Your task to perform on an android device: turn on the 24-hour format for clock Image 0: 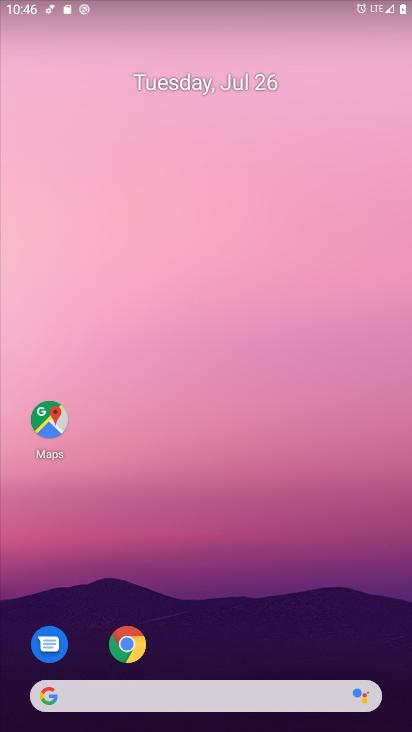
Step 0: drag from (196, 647) to (236, 99)
Your task to perform on an android device: turn on the 24-hour format for clock Image 1: 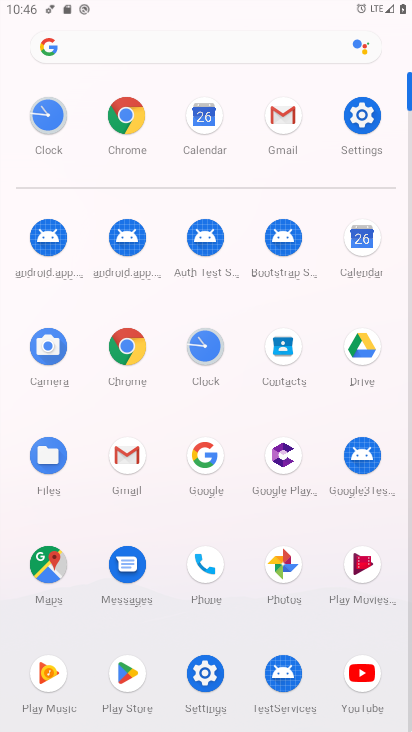
Step 1: click (350, 150)
Your task to perform on an android device: turn on the 24-hour format for clock Image 2: 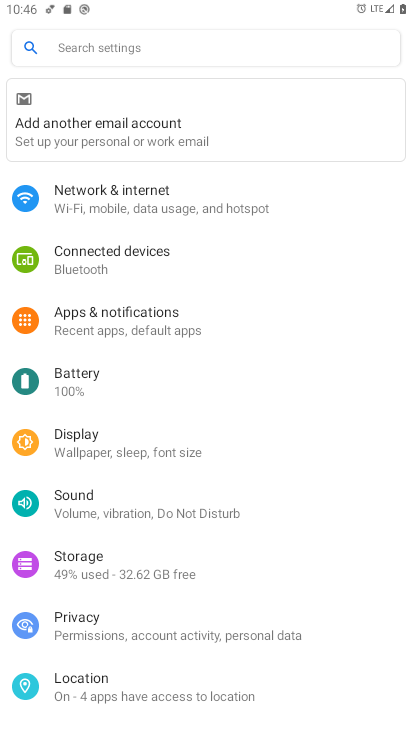
Step 2: drag from (156, 681) to (165, 405)
Your task to perform on an android device: turn on the 24-hour format for clock Image 3: 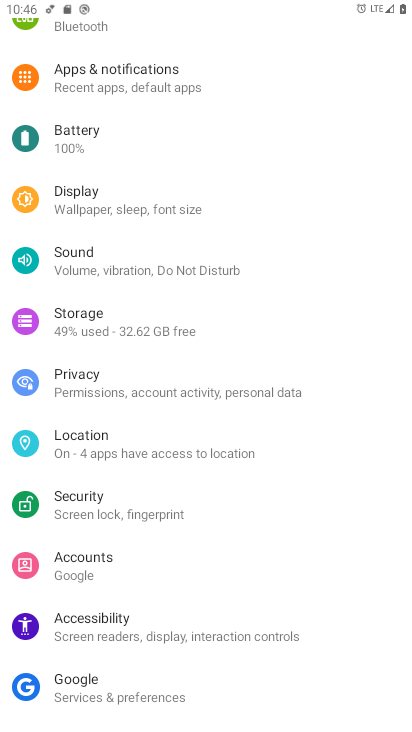
Step 3: drag from (98, 690) to (145, 308)
Your task to perform on an android device: turn on the 24-hour format for clock Image 4: 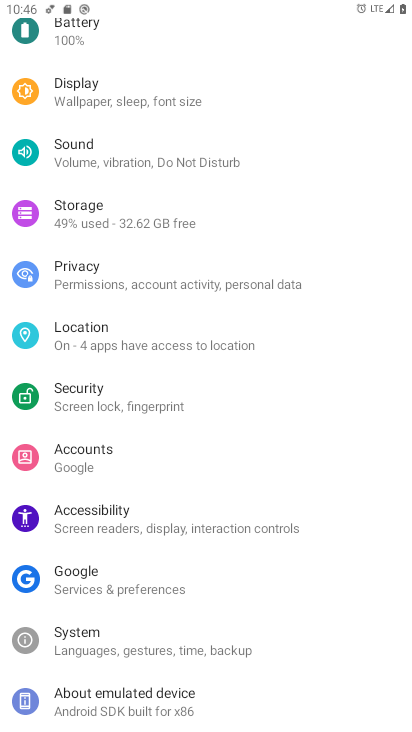
Step 4: click (93, 648)
Your task to perform on an android device: turn on the 24-hour format for clock Image 5: 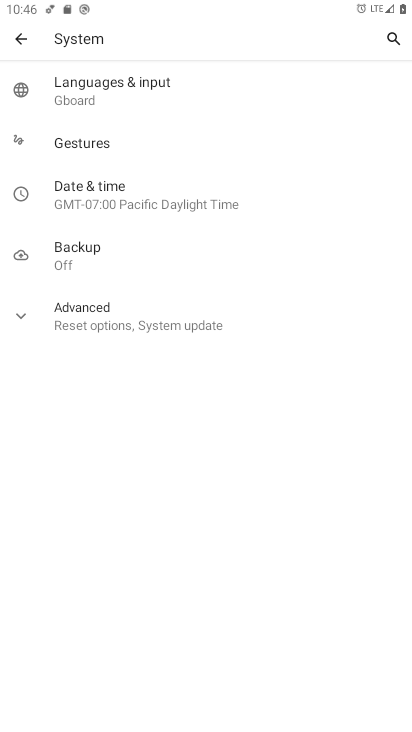
Step 5: click (123, 202)
Your task to perform on an android device: turn on the 24-hour format for clock Image 6: 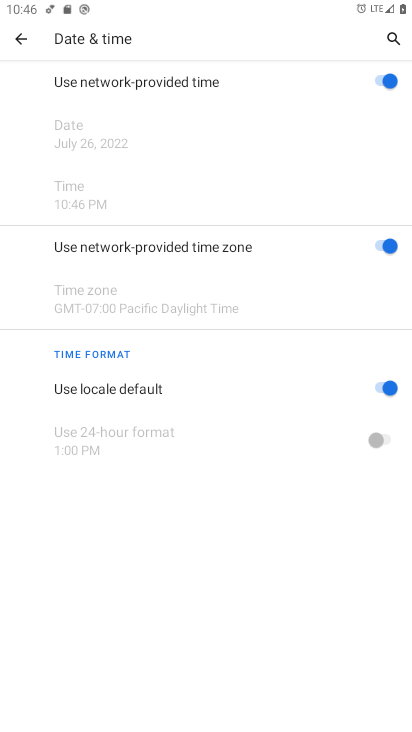
Step 6: click (357, 386)
Your task to perform on an android device: turn on the 24-hour format for clock Image 7: 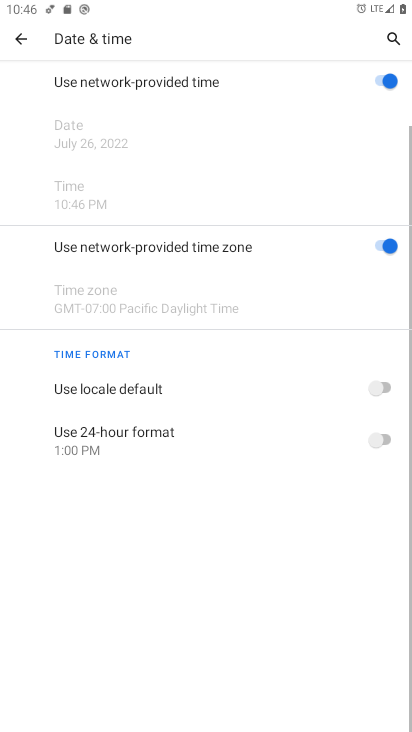
Step 7: click (396, 432)
Your task to perform on an android device: turn on the 24-hour format for clock Image 8: 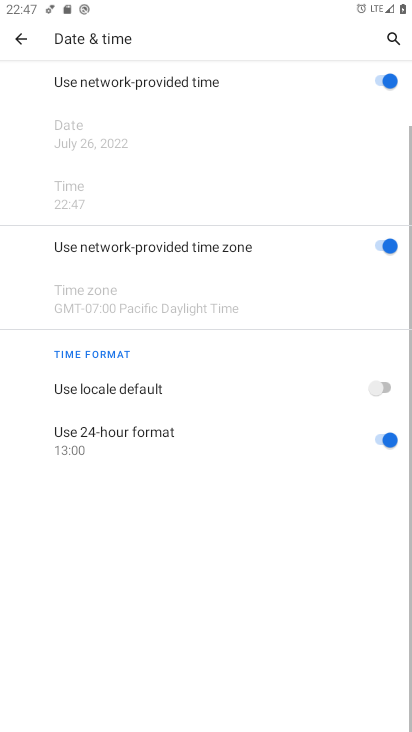
Step 8: task complete